Your task to perform on an android device: turn on the 12-hour format for clock Image 0: 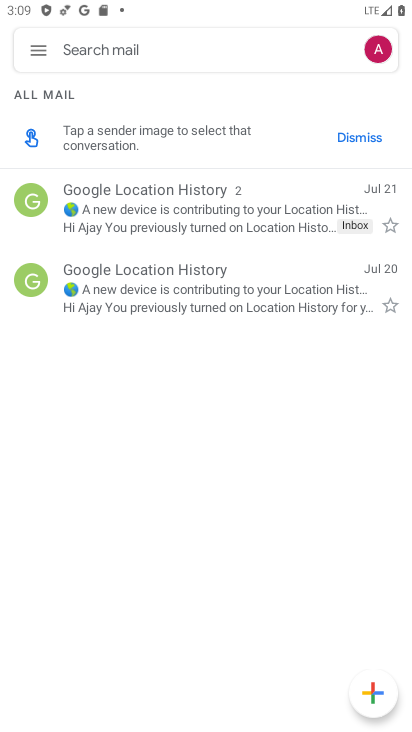
Step 0: press home button
Your task to perform on an android device: turn on the 12-hour format for clock Image 1: 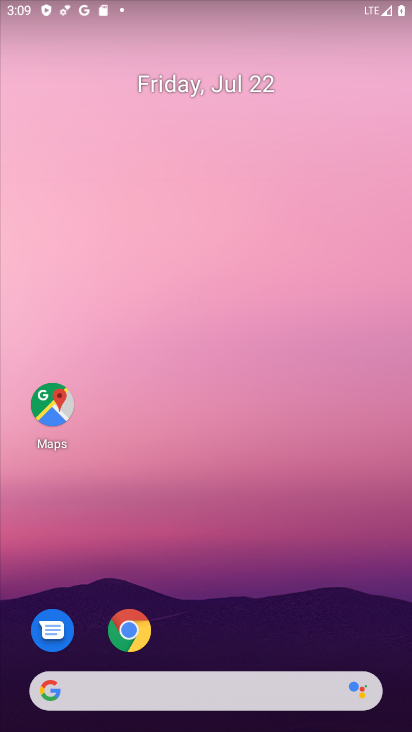
Step 1: drag from (211, 548) to (203, 169)
Your task to perform on an android device: turn on the 12-hour format for clock Image 2: 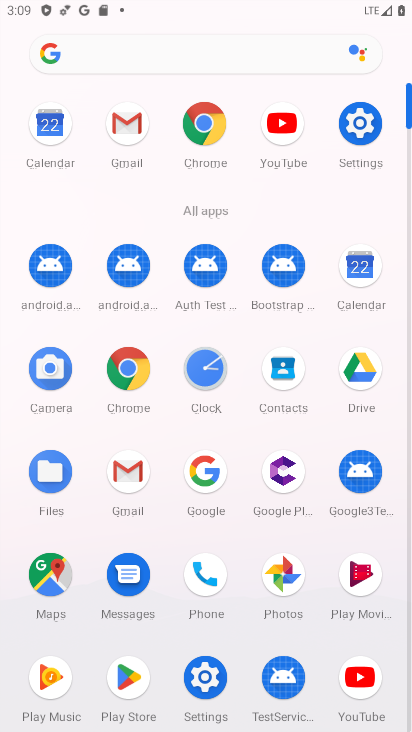
Step 2: click (350, 128)
Your task to perform on an android device: turn on the 12-hour format for clock Image 3: 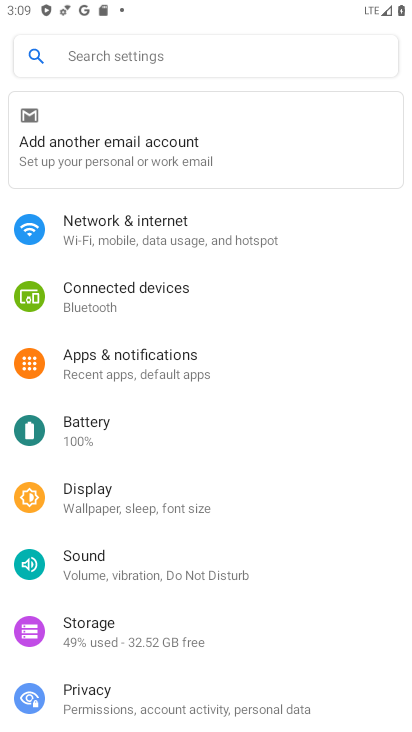
Step 3: drag from (86, 671) to (16, 52)
Your task to perform on an android device: turn on the 12-hour format for clock Image 4: 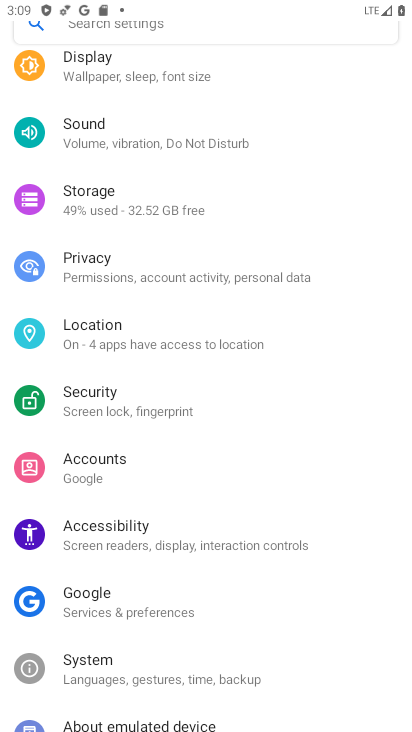
Step 4: click (123, 655)
Your task to perform on an android device: turn on the 12-hour format for clock Image 5: 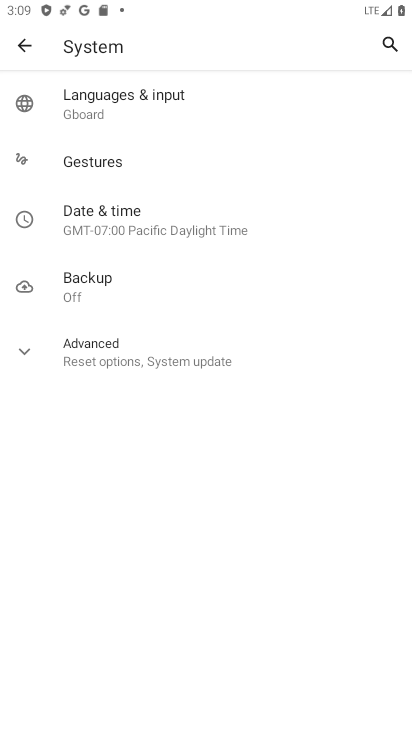
Step 5: click (108, 221)
Your task to perform on an android device: turn on the 12-hour format for clock Image 6: 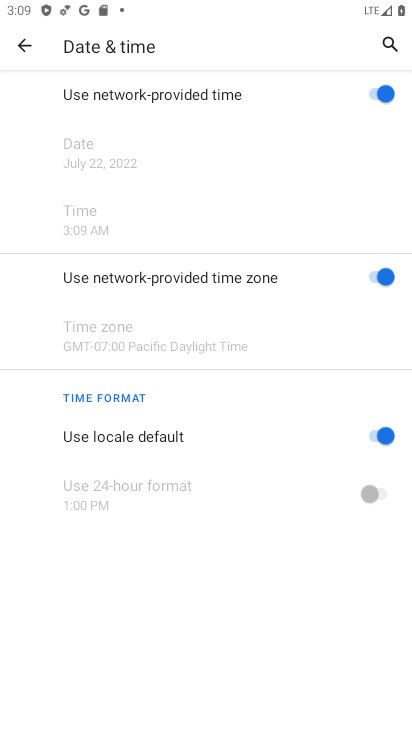
Step 6: task complete